Your task to perform on an android device: turn vacation reply on in the gmail app Image 0: 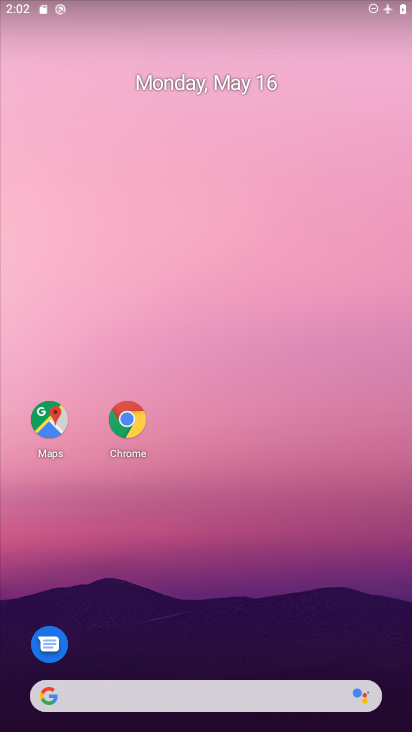
Step 0: drag from (194, 526) to (248, 52)
Your task to perform on an android device: turn vacation reply on in the gmail app Image 1: 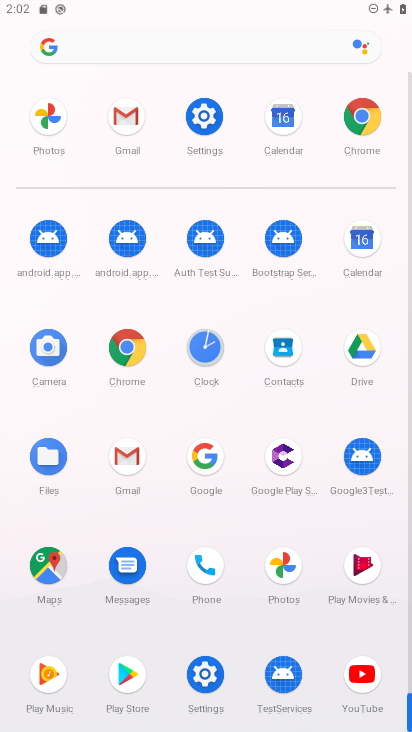
Step 1: click (141, 458)
Your task to perform on an android device: turn vacation reply on in the gmail app Image 2: 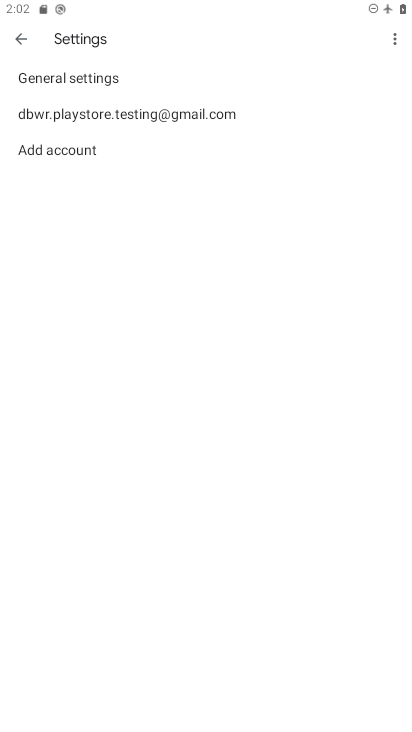
Step 2: click (114, 115)
Your task to perform on an android device: turn vacation reply on in the gmail app Image 3: 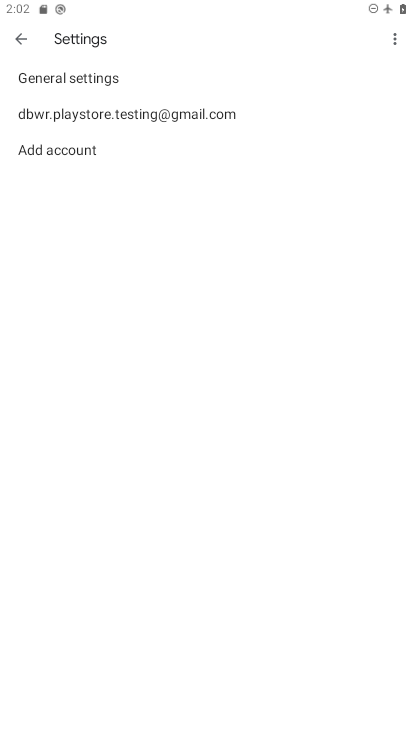
Step 3: click (116, 115)
Your task to perform on an android device: turn vacation reply on in the gmail app Image 4: 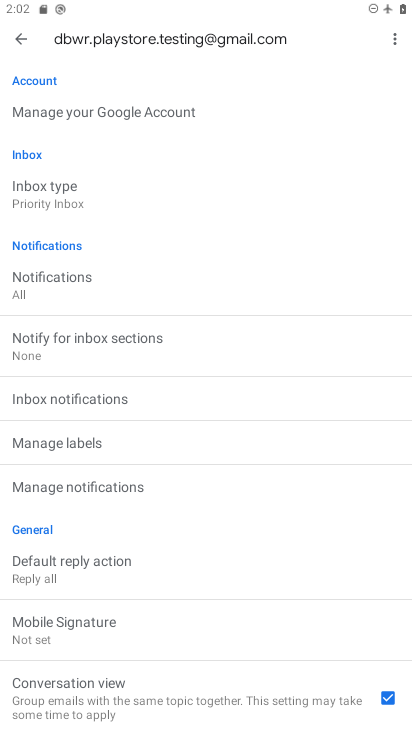
Step 4: drag from (153, 561) to (256, 111)
Your task to perform on an android device: turn vacation reply on in the gmail app Image 5: 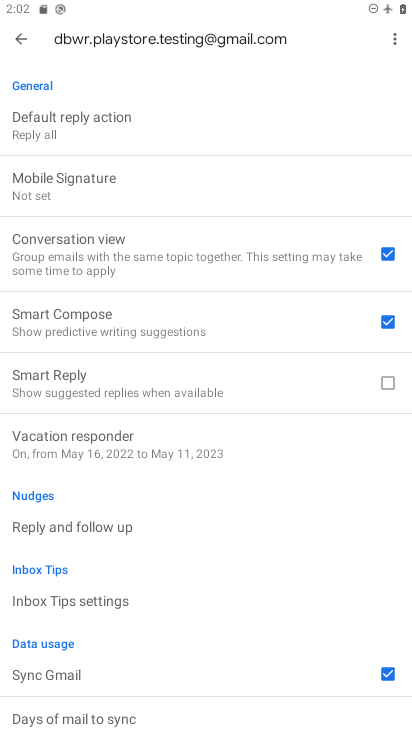
Step 5: click (95, 444)
Your task to perform on an android device: turn vacation reply on in the gmail app Image 6: 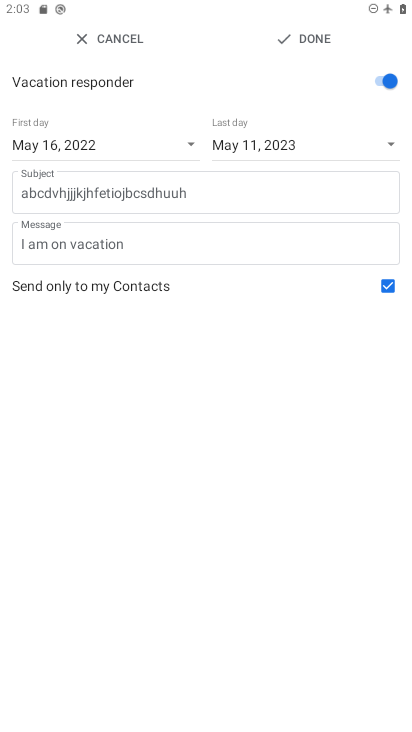
Step 6: click (312, 36)
Your task to perform on an android device: turn vacation reply on in the gmail app Image 7: 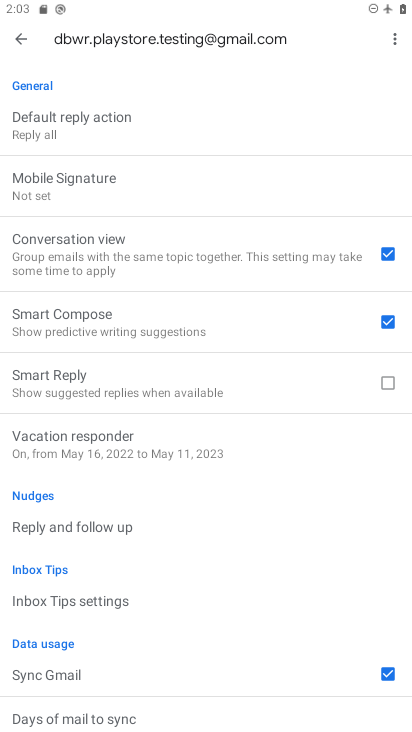
Step 7: task complete